Your task to perform on an android device: Go to location settings Image 0: 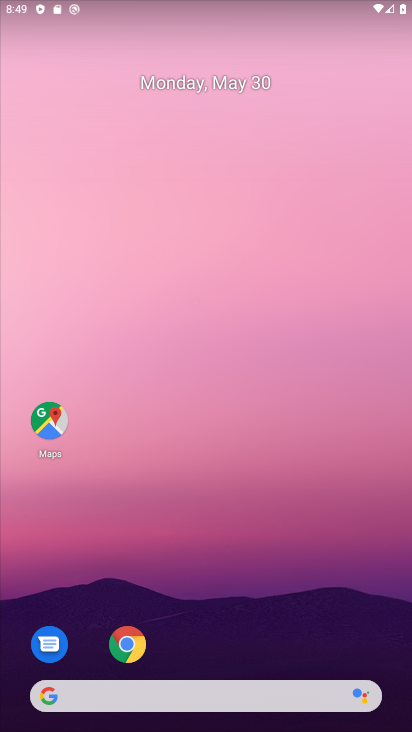
Step 0: drag from (205, 651) to (242, 104)
Your task to perform on an android device: Go to location settings Image 1: 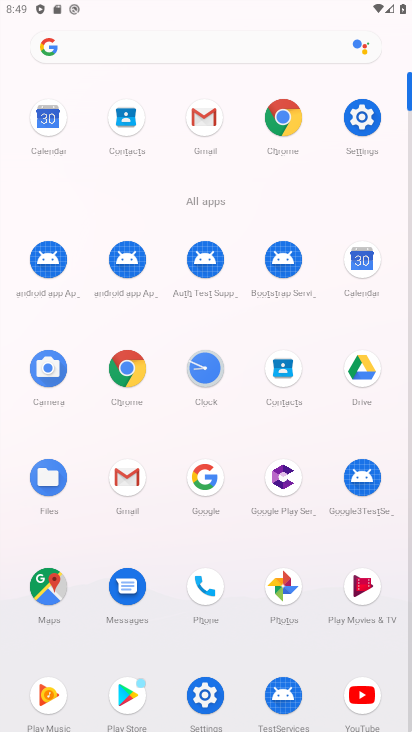
Step 1: click (362, 112)
Your task to perform on an android device: Go to location settings Image 2: 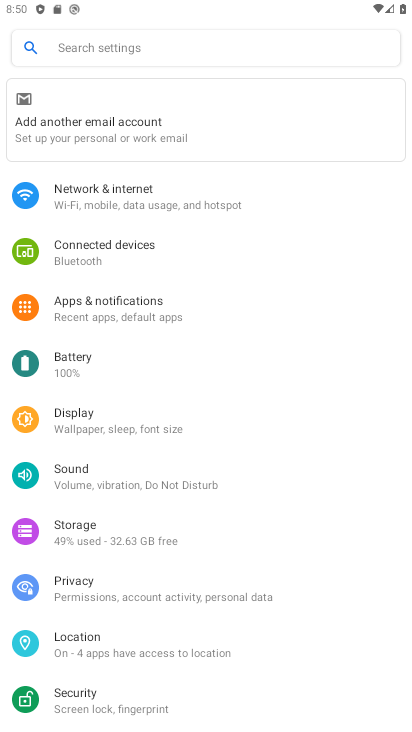
Step 2: click (88, 595)
Your task to perform on an android device: Go to location settings Image 3: 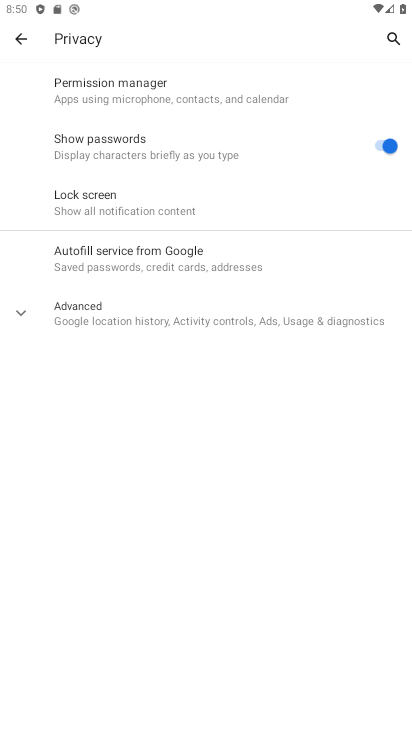
Step 3: click (18, 34)
Your task to perform on an android device: Go to location settings Image 4: 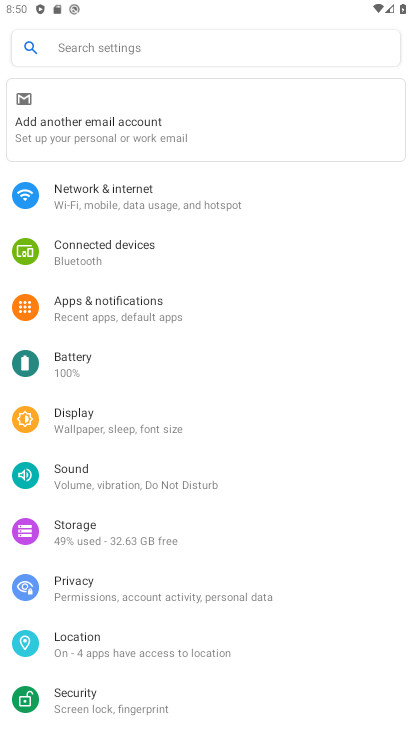
Step 4: click (102, 640)
Your task to perform on an android device: Go to location settings Image 5: 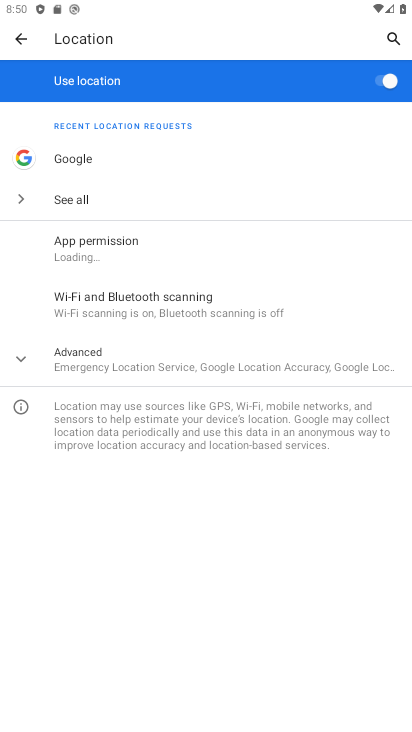
Step 5: task complete